Your task to perform on an android device: Play the last video I watched on Youtube Image 0: 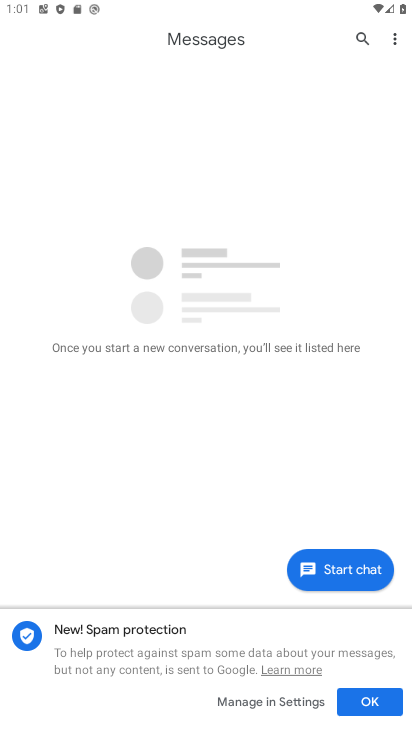
Step 0: press home button
Your task to perform on an android device: Play the last video I watched on Youtube Image 1: 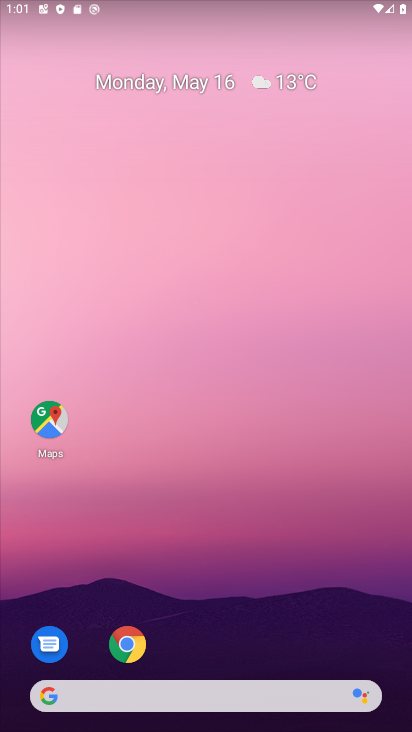
Step 1: drag from (271, 656) to (326, 195)
Your task to perform on an android device: Play the last video I watched on Youtube Image 2: 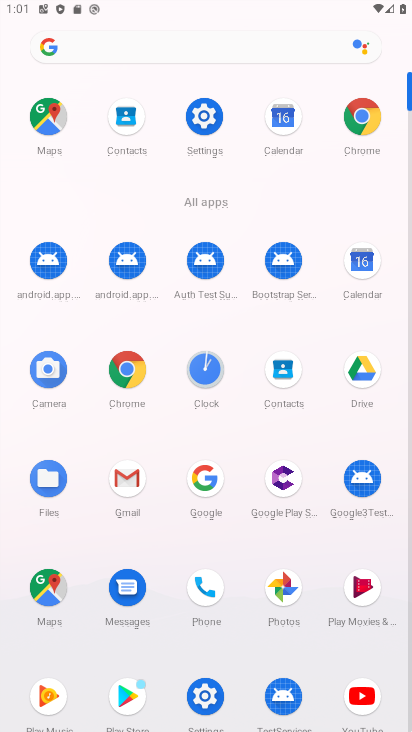
Step 2: drag from (243, 486) to (274, 227)
Your task to perform on an android device: Play the last video I watched on Youtube Image 3: 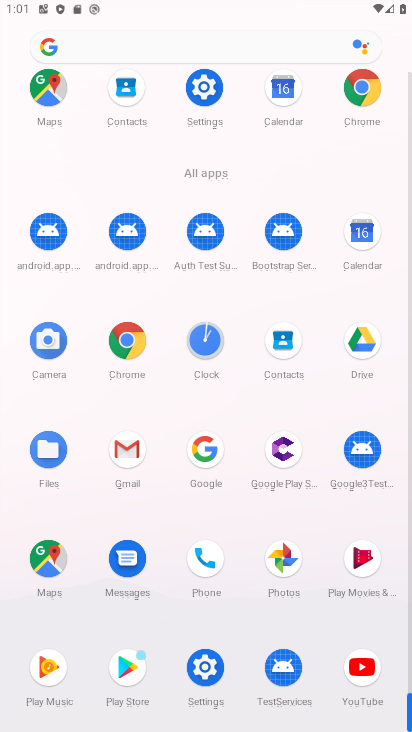
Step 3: click (365, 666)
Your task to perform on an android device: Play the last video I watched on Youtube Image 4: 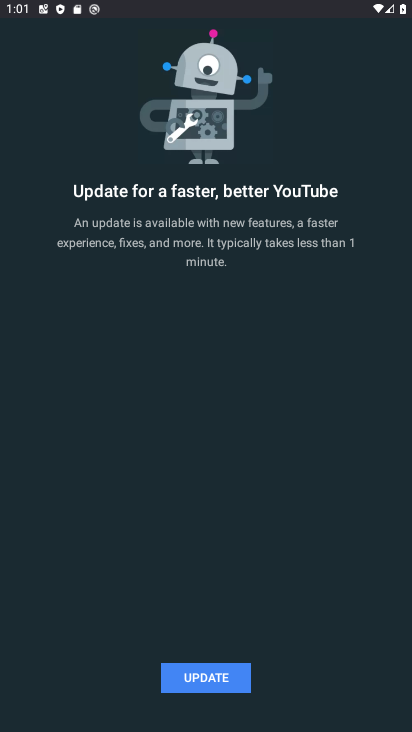
Step 4: click (213, 678)
Your task to perform on an android device: Play the last video I watched on Youtube Image 5: 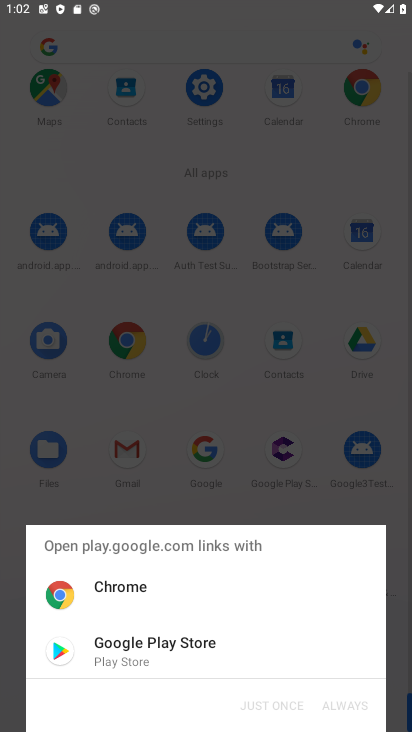
Step 5: click (239, 642)
Your task to perform on an android device: Play the last video I watched on Youtube Image 6: 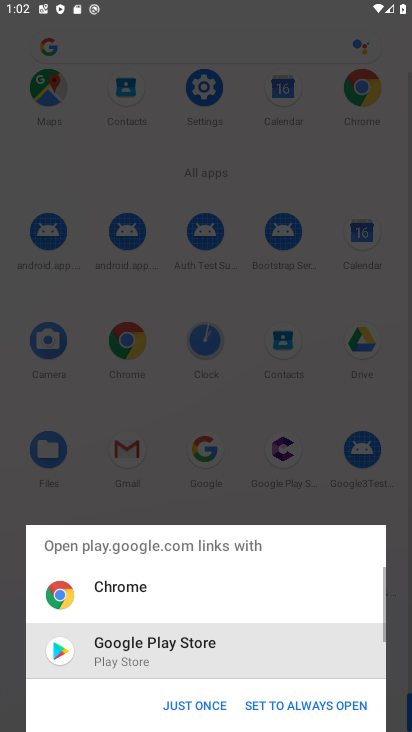
Step 6: click (220, 703)
Your task to perform on an android device: Play the last video I watched on Youtube Image 7: 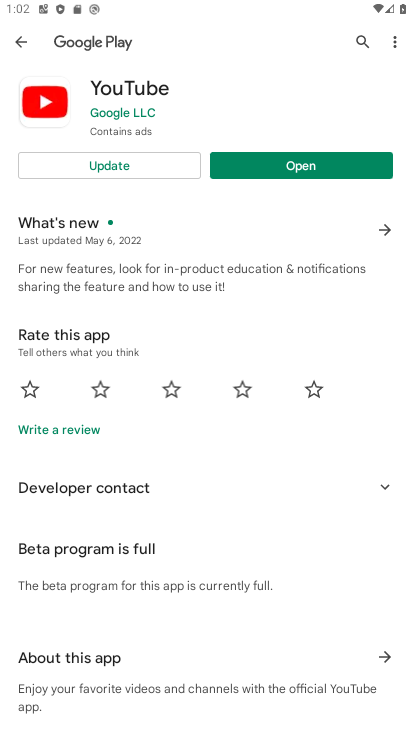
Step 7: click (141, 167)
Your task to perform on an android device: Play the last video I watched on Youtube Image 8: 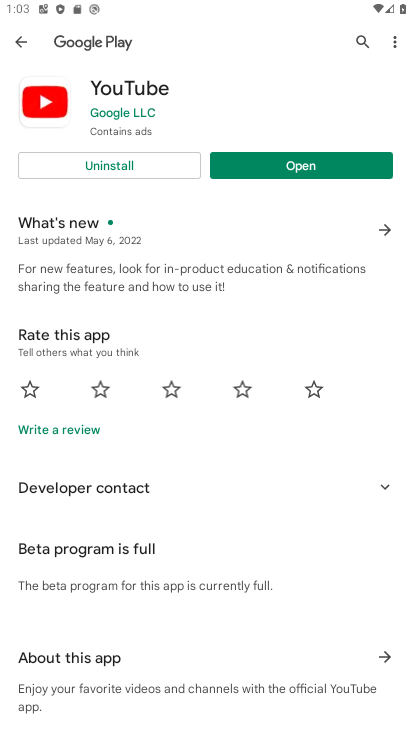
Step 8: task complete